Your task to perform on an android device: find snoozed emails in the gmail app Image 0: 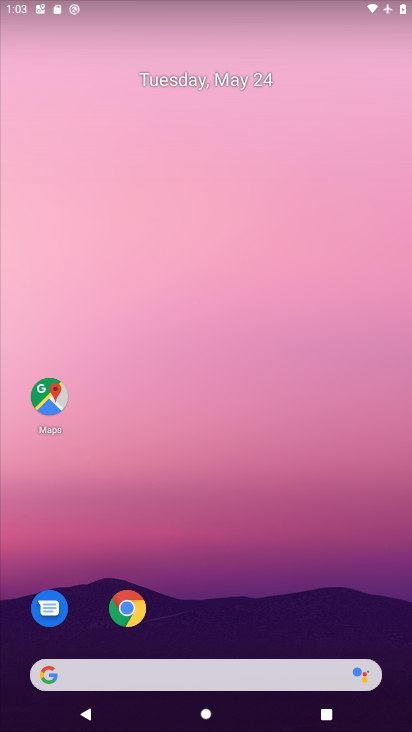
Step 0: drag from (227, 605) to (220, 85)
Your task to perform on an android device: find snoozed emails in the gmail app Image 1: 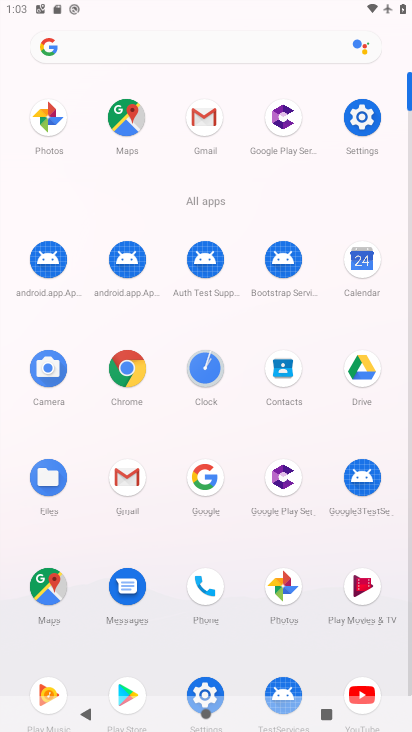
Step 1: click (212, 144)
Your task to perform on an android device: find snoozed emails in the gmail app Image 2: 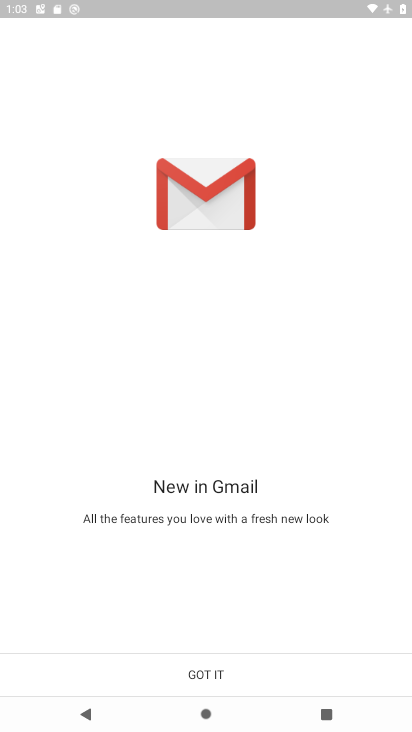
Step 2: click (228, 677)
Your task to perform on an android device: find snoozed emails in the gmail app Image 3: 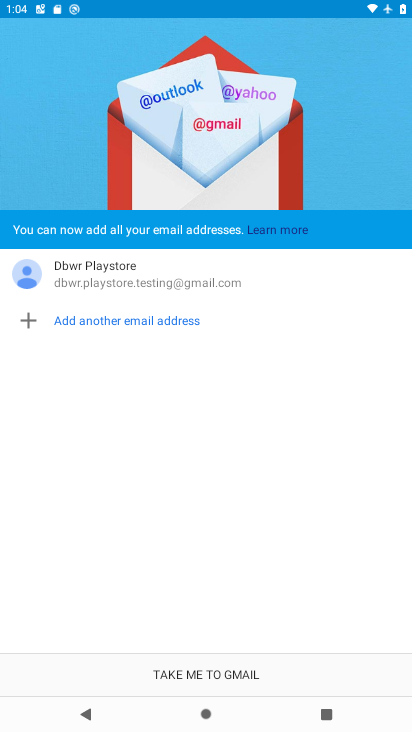
Step 3: click (228, 670)
Your task to perform on an android device: find snoozed emails in the gmail app Image 4: 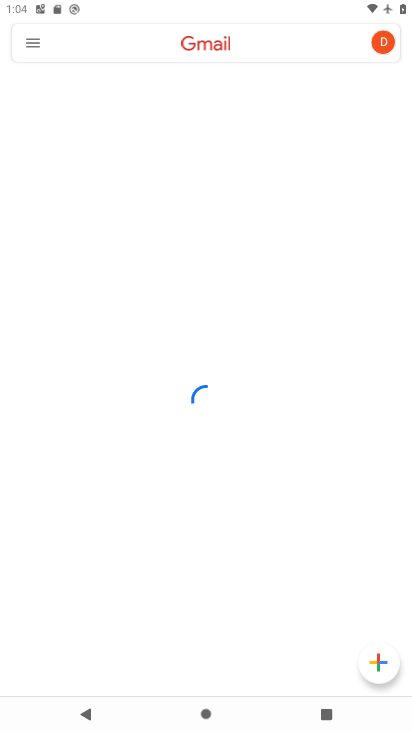
Step 4: task complete